Your task to perform on an android device: open app "Adobe Acrobat Reader" (install if not already installed) Image 0: 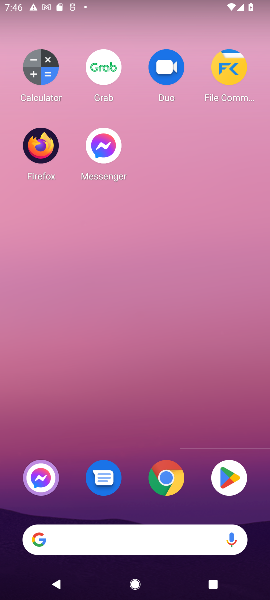
Step 0: press home button
Your task to perform on an android device: open app "Adobe Acrobat Reader" (install if not already installed) Image 1: 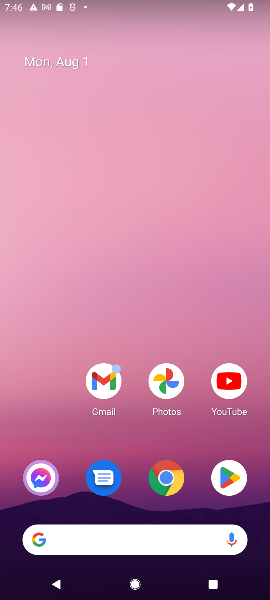
Step 1: click (233, 473)
Your task to perform on an android device: open app "Adobe Acrobat Reader" (install if not already installed) Image 2: 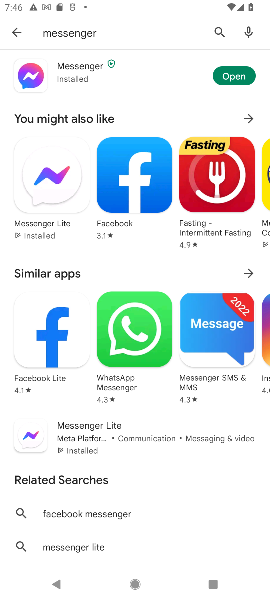
Step 2: click (215, 30)
Your task to perform on an android device: open app "Adobe Acrobat Reader" (install if not already installed) Image 3: 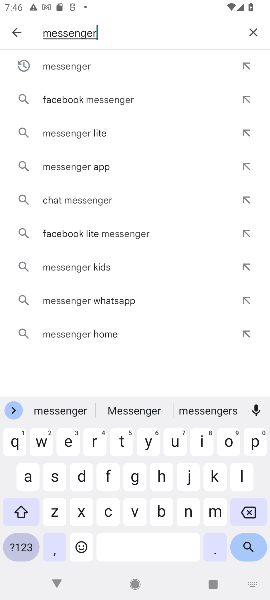
Step 3: click (255, 26)
Your task to perform on an android device: open app "Adobe Acrobat Reader" (install if not already installed) Image 4: 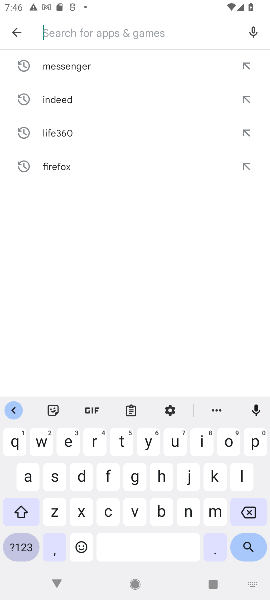
Step 4: click (28, 478)
Your task to perform on an android device: open app "Adobe Acrobat Reader" (install if not already installed) Image 5: 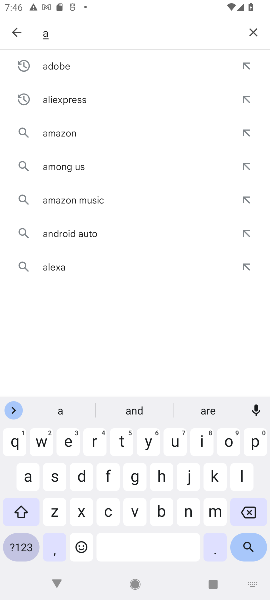
Step 5: click (81, 481)
Your task to perform on an android device: open app "Adobe Acrobat Reader" (install if not already installed) Image 6: 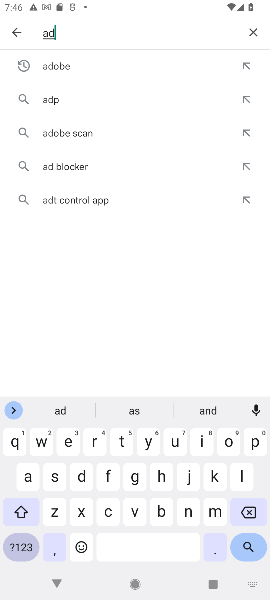
Step 6: click (103, 65)
Your task to perform on an android device: open app "Adobe Acrobat Reader" (install if not already installed) Image 7: 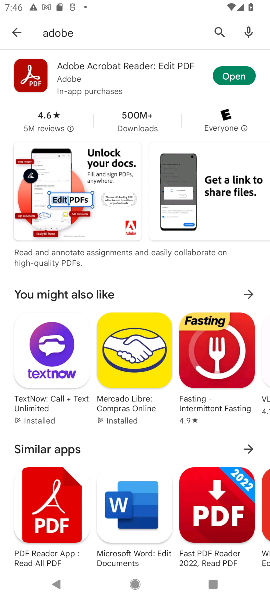
Step 7: click (222, 74)
Your task to perform on an android device: open app "Adobe Acrobat Reader" (install if not already installed) Image 8: 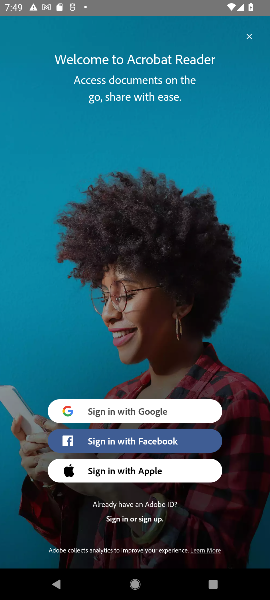
Step 8: task complete